Your task to perform on an android device: Open maps Image 0: 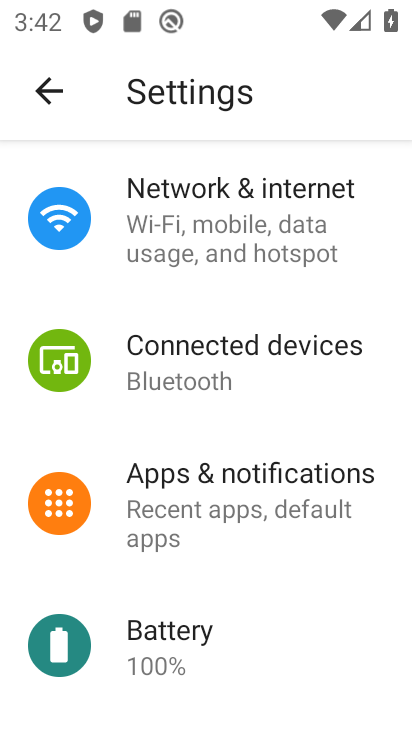
Step 0: press home button
Your task to perform on an android device: Open maps Image 1: 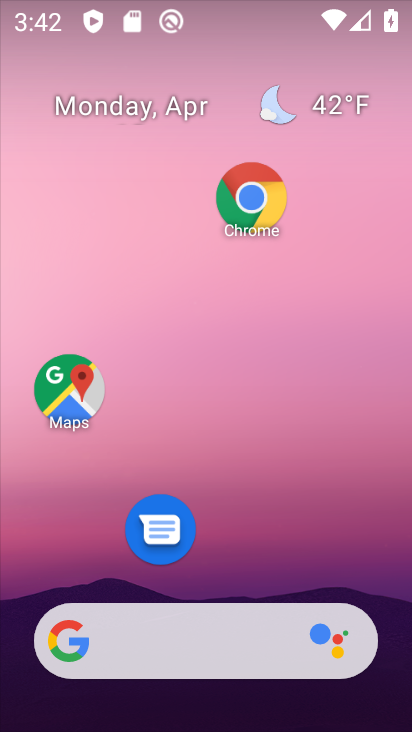
Step 1: click (71, 408)
Your task to perform on an android device: Open maps Image 2: 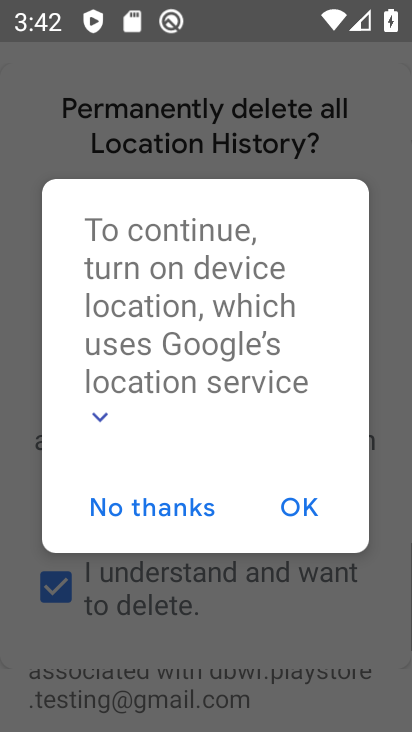
Step 2: drag from (265, 615) to (247, 289)
Your task to perform on an android device: Open maps Image 3: 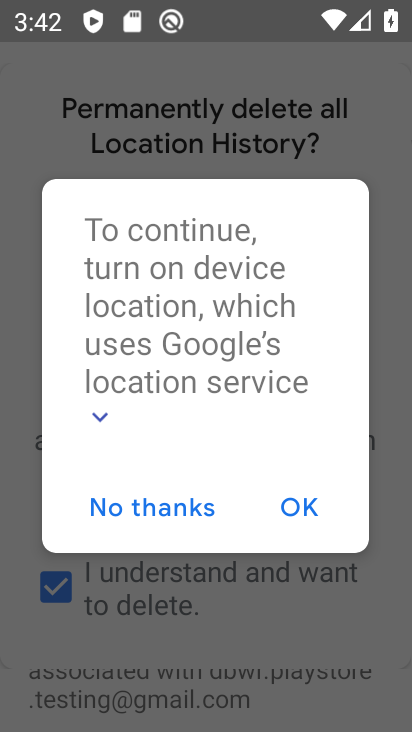
Step 3: click (317, 506)
Your task to perform on an android device: Open maps Image 4: 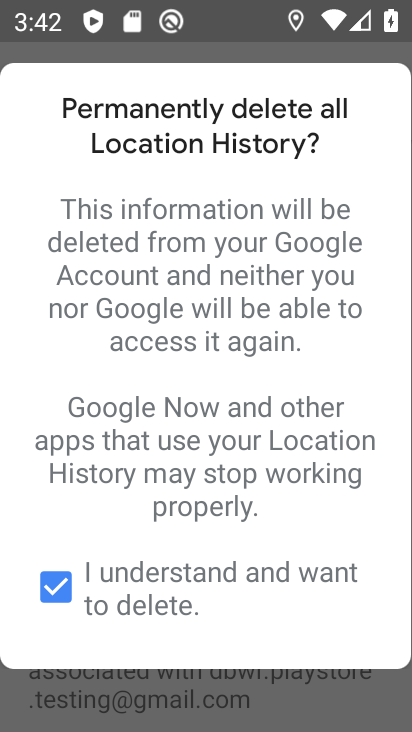
Step 4: drag from (286, 557) to (275, 273)
Your task to perform on an android device: Open maps Image 5: 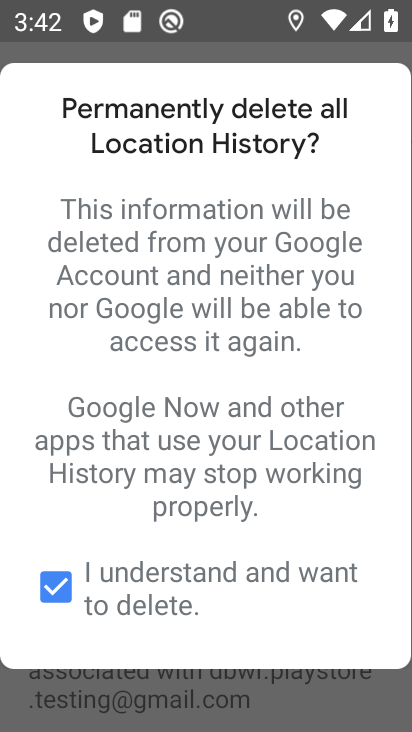
Step 5: drag from (253, 606) to (251, 353)
Your task to perform on an android device: Open maps Image 6: 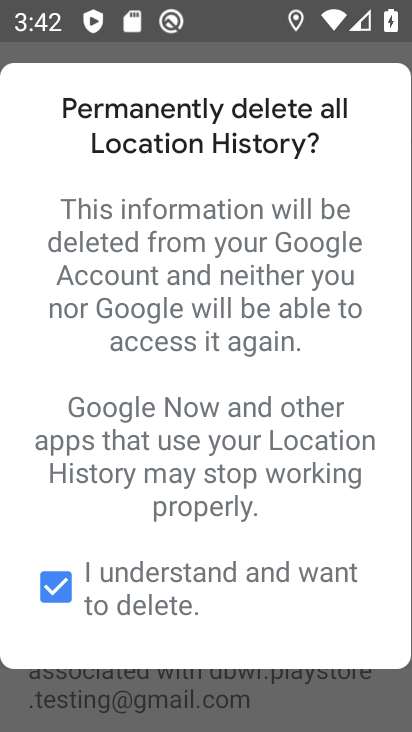
Step 6: click (325, 631)
Your task to perform on an android device: Open maps Image 7: 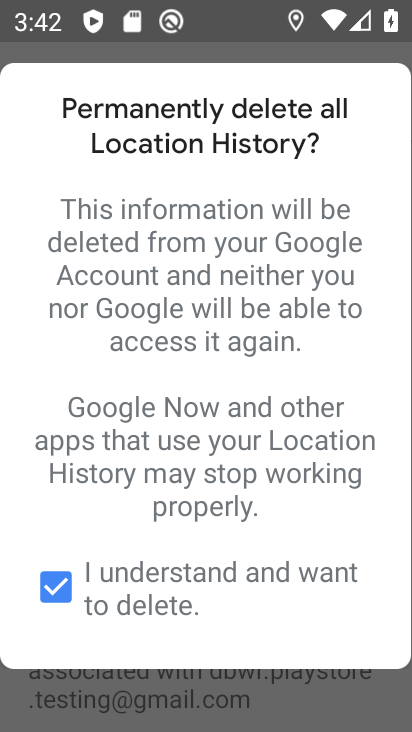
Step 7: click (330, 620)
Your task to perform on an android device: Open maps Image 8: 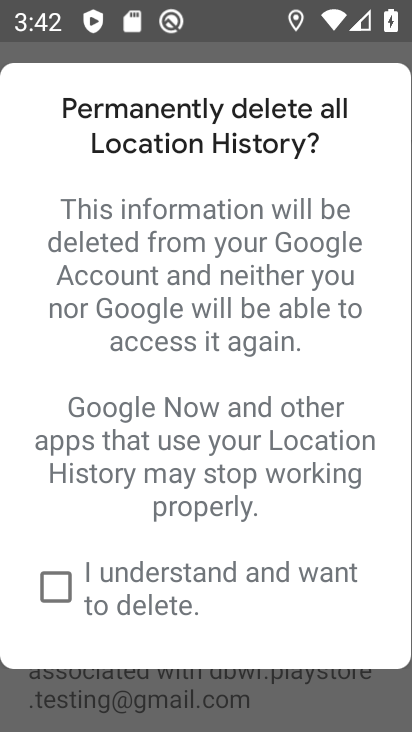
Step 8: press back button
Your task to perform on an android device: Open maps Image 9: 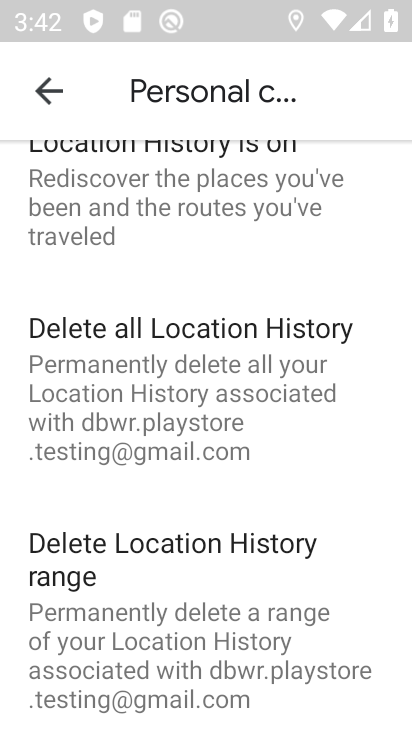
Step 9: press back button
Your task to perform on an android device: Open maps Image 10: 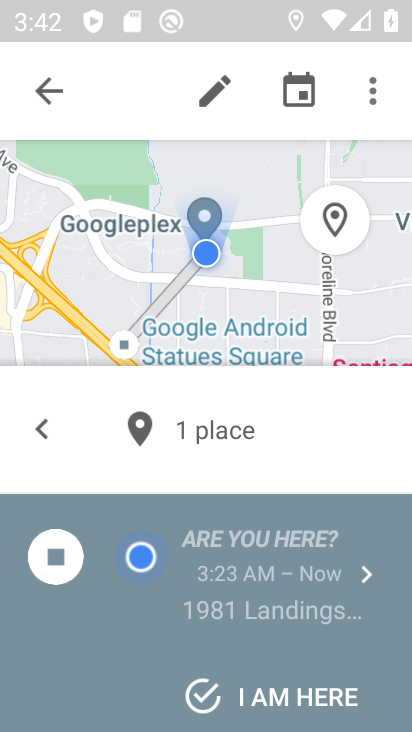
Step 10: click (48, 91)
Your task to perform on an android device: Open maps Image 11: 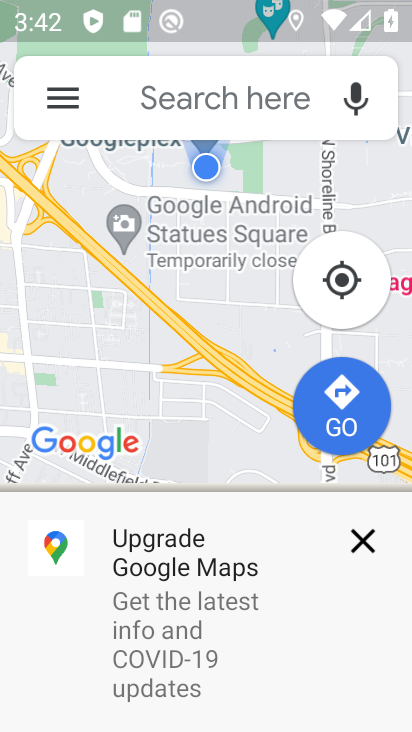
Step 11: task complete